Your task to perform on an android device: toggle show notifications on the lock screen Image 0: 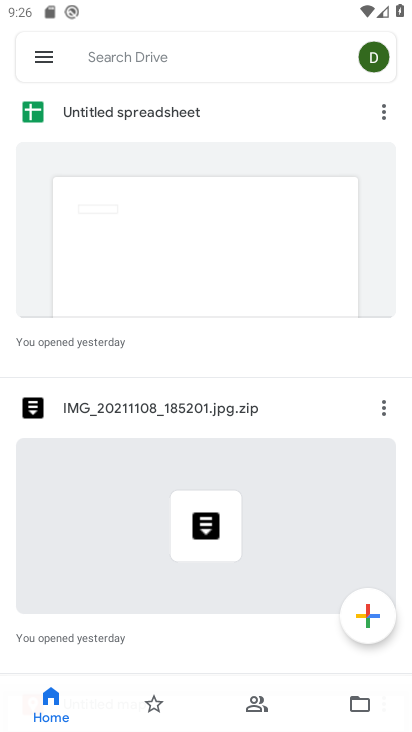
Step 0: press home button
Your task to perform on an android device: toggle show notifications on the lock screen Image 1: 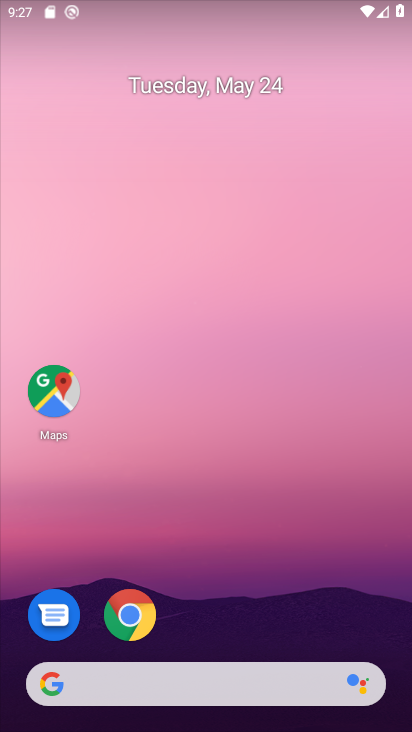
Step 1: drag from (369, 610) to (359, 255)
Your task to perform on an android device: toggle show notifications on the lock screen Image 2: 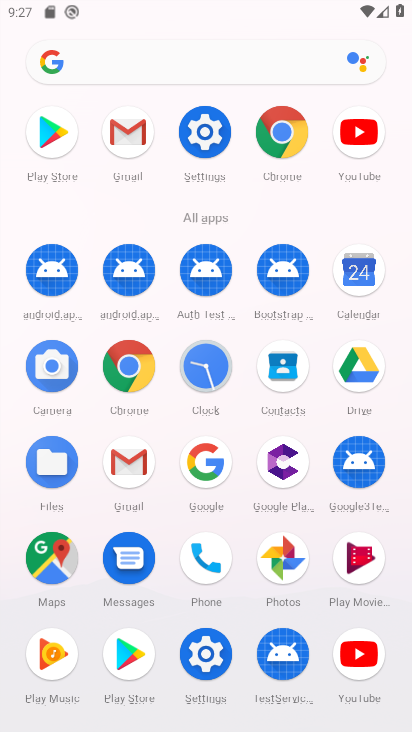
Step 2: click (216, 672)
Your task to perform on an android device: toggle show notifications on the lock screen Image 3: 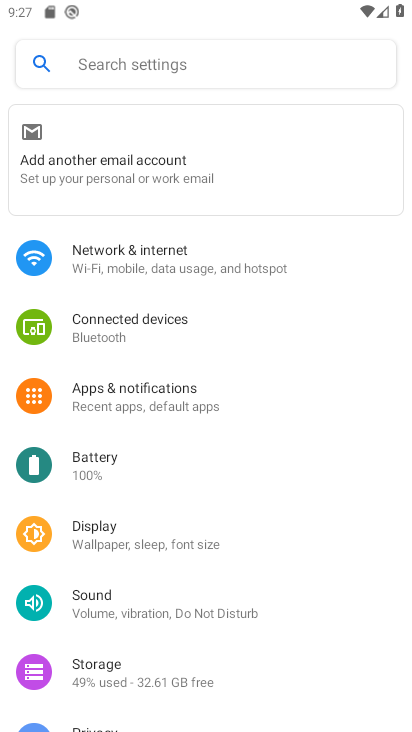
Step 3: drag from (347, 578) to (343, 450)
Your task to perform on an android device: toggle show notifications on the lock screen Image 4: 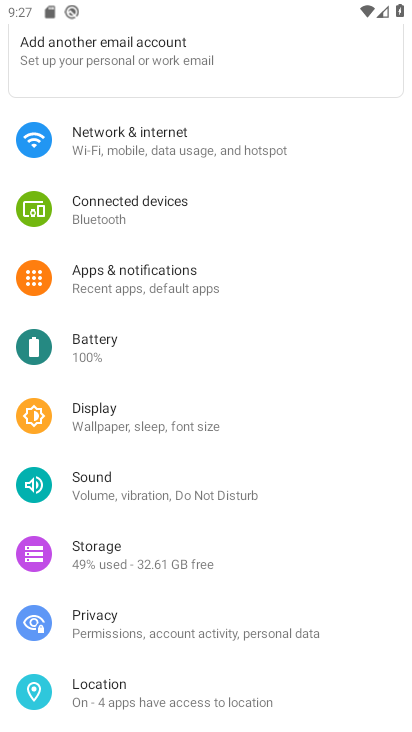
Step 4: drag from (355, 622) to (359, 505)
Your task to perform on an android device: toggle show notifications on the lock screen Image 5: 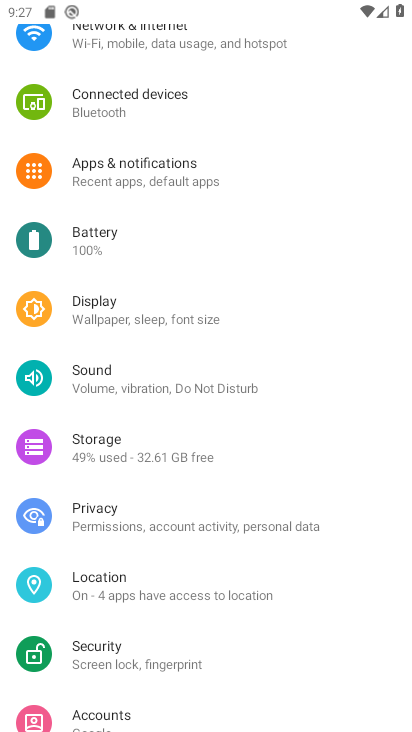
Step 5: drag from (347, 648) to (343, 515)
Your task to perform on an android device: toggle show notifications on the lock screen Image 6: 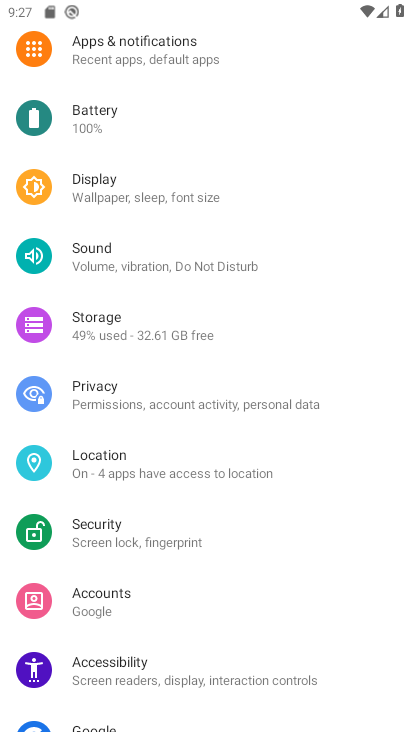
Step 6: drag from (347, 647) to (355, 482)
Your task to perform on an android device: toggle show notifications on the lock screen Image 7: 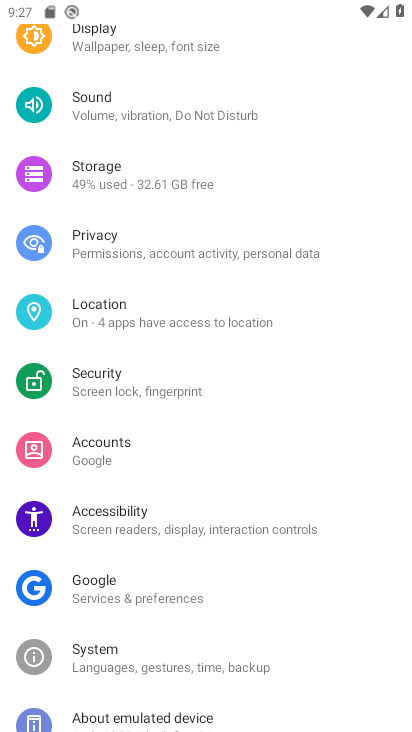
Step 7: drag from (339, 639) to (342, 511)
Your task to perform on an android device: toggle show notifications on the lock screen Image 8: 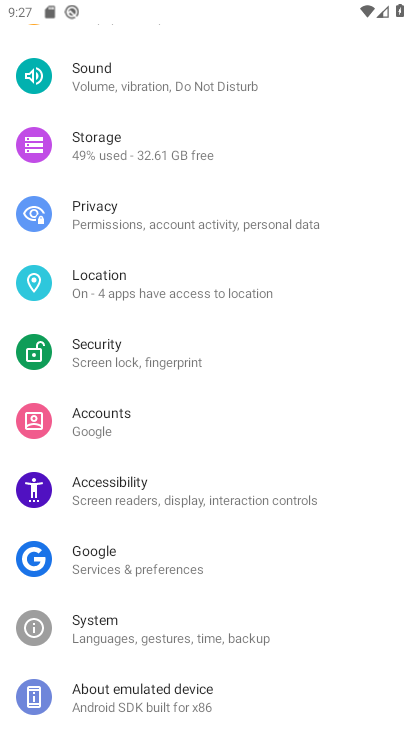
Step 8: drag from (357, 351) to (337, 498)
Your task to perform on an android device: toggle show notifications on the lock screen Image 9: 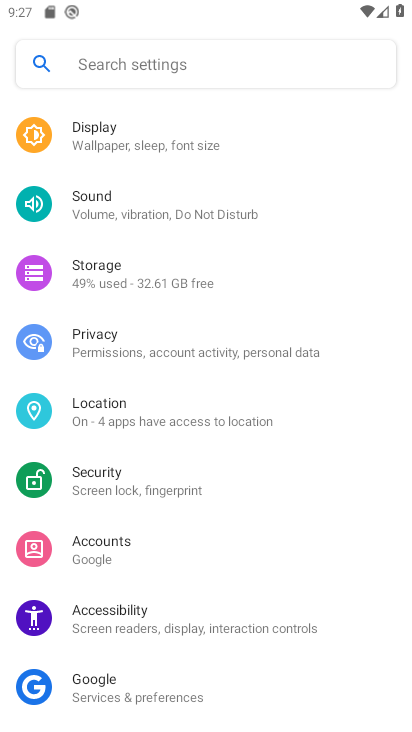
Step 9: drag from (335, 372) to (339, 562)
Your task to perform on an android device: toggle show notifications on the lock screen Image 10: 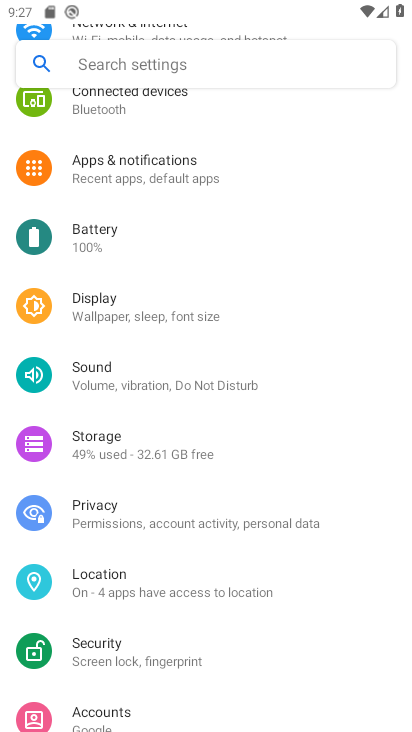
Step 10: drag from (330, 389) to (326, 494)
Your task to perform on an android device: toggle show notifications on the lock screen Image 11: 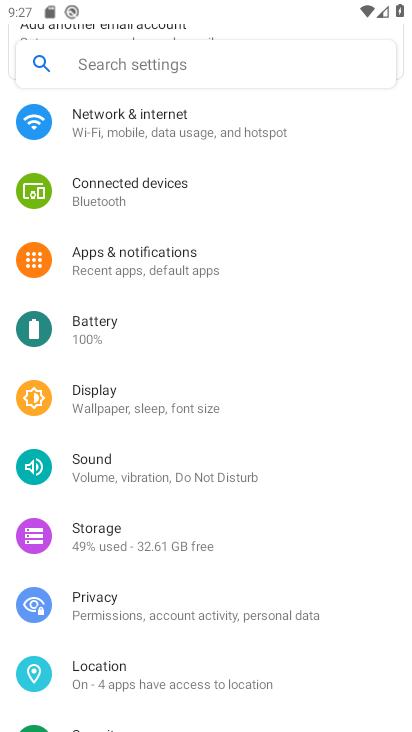
Step 11: drag from (324, 372) to (320, 488)
Your task to perform on an android device: toggle show notifications on the lock screen Image 12: 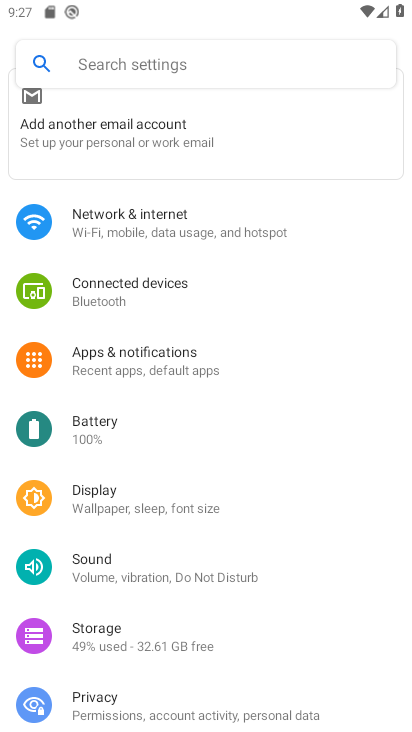
Step 12: drag from (316, 333) to (317, 469)
Your task to perform on an android device: toggle show notifications on the lock screen Image 13: 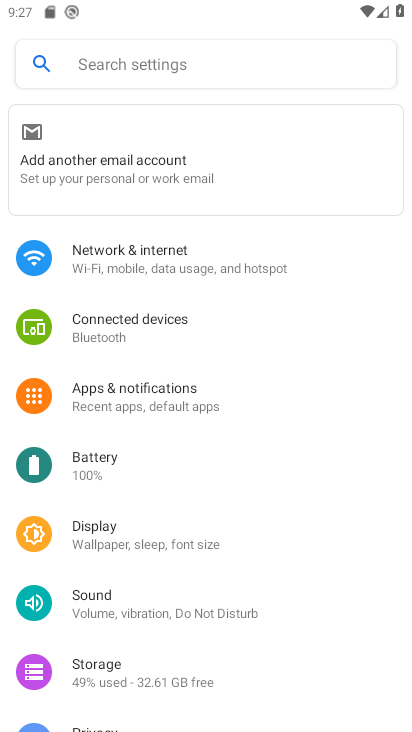
Step 13: click (195, 404)
Your task to perform on an android device: toggle show notifications on the lock screen Image 14: 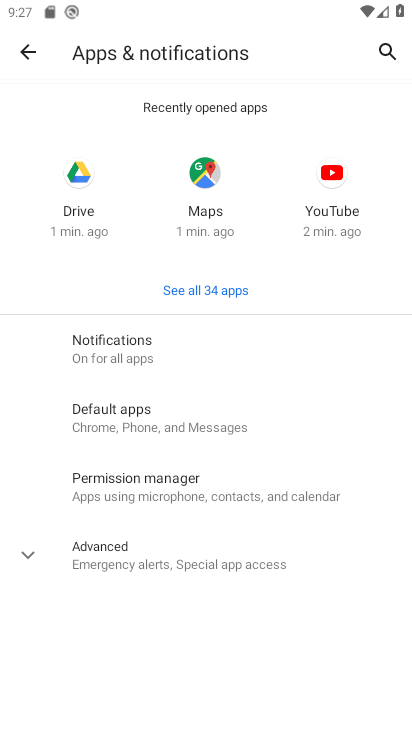
Step 14: click (176, 347)
Your task to perform on an android device: toggle show notifications on the lock screen Image 15: 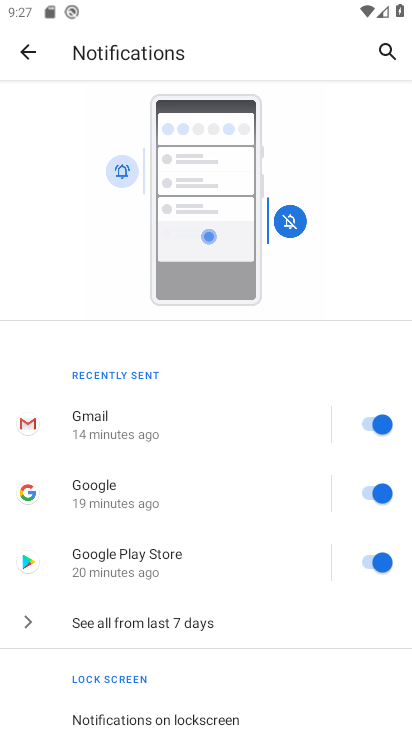
Step 15: drag from (258, 552) to (252, 442)
Your task to perform on an android device: toggle show notifications on the lock screen Image 16: 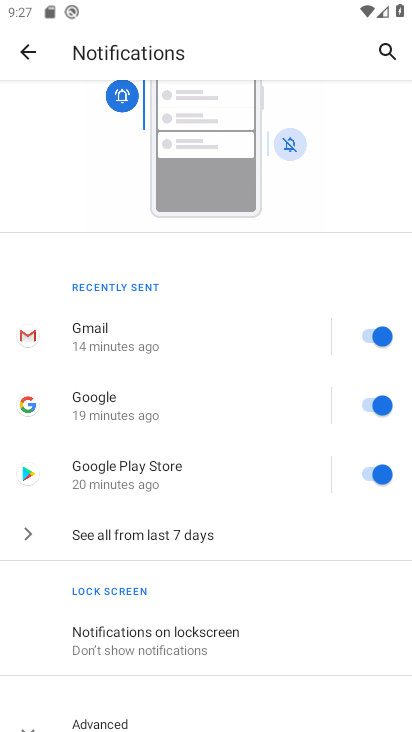
Step 16: drag from (283, 617) to (283, 524)
Your task to perform on an android device: toggle show notifications on the lock screen Image 17: 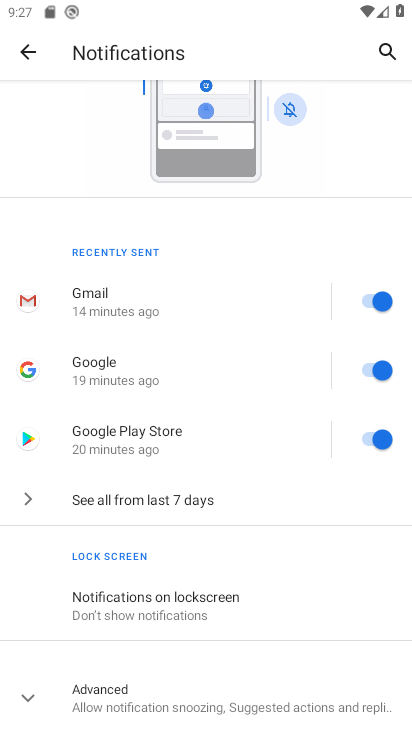
Step 17: click (208, 619)
Your task to perform on an android device: toggle show notifications on the lock screen Image 18: 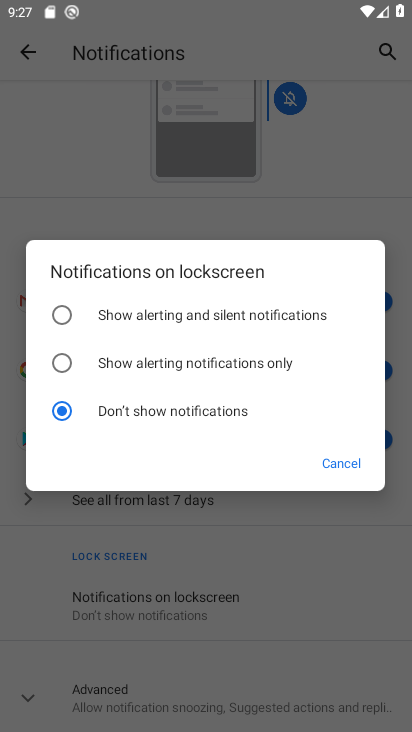
Step 18: click (62, 318)
Your task to perform on an android device: toggle show notifications on the lock screen Image 19: 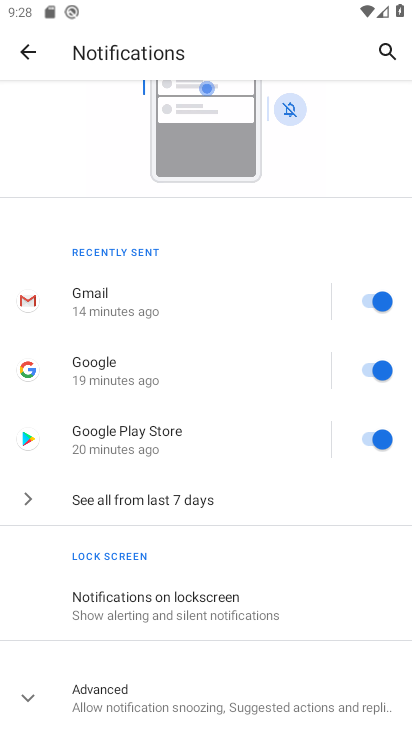
Step 19: task complete